Your task to perform on an android device: toggle pop-ups in chrome Image 0: 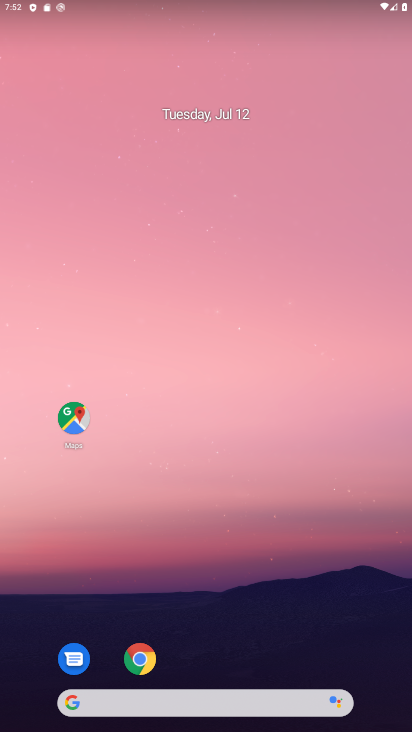
Step 0: drag from (342, 613) to (337, 74)
Your task to perform on an android device: toggle pop-ups in chrome Image 1: 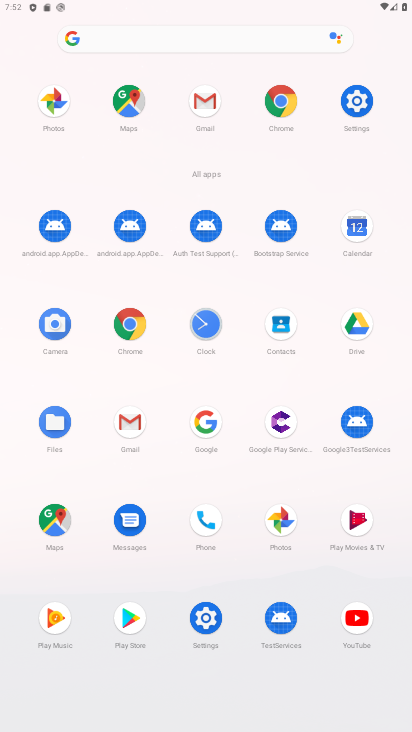
Step 1: click (133, 328)
Your task to perform on an android device: toggle pop-ups in chrome Image 2: 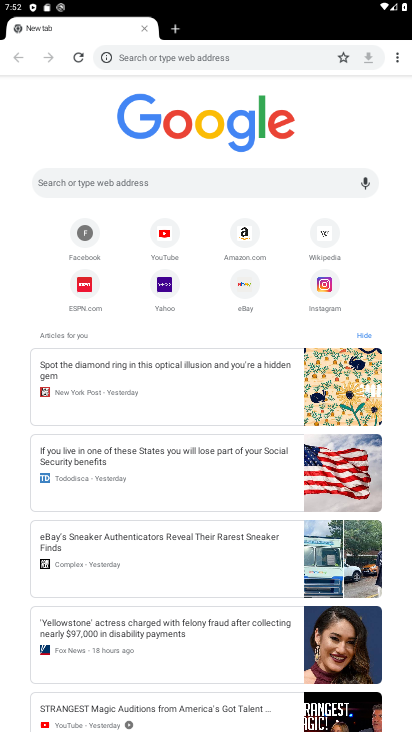
Step 2: click (394, 60)
Your task to perform on an android device: toggle pop-ups in chrome Image 3: 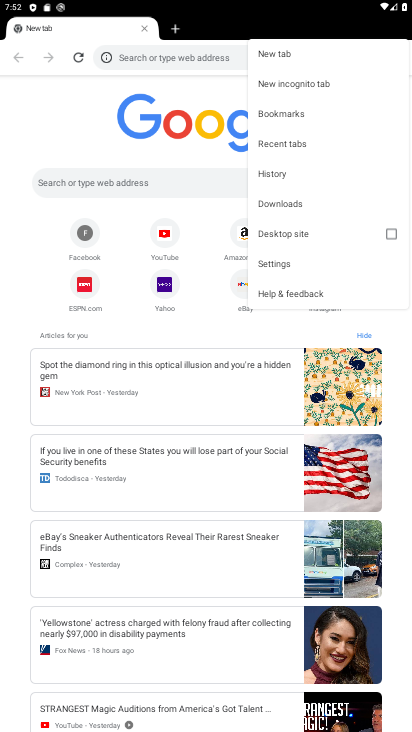
Step 3: click (292, 264)
Your task to perform on an android device: toggle pop-ups in chrome Image 4: 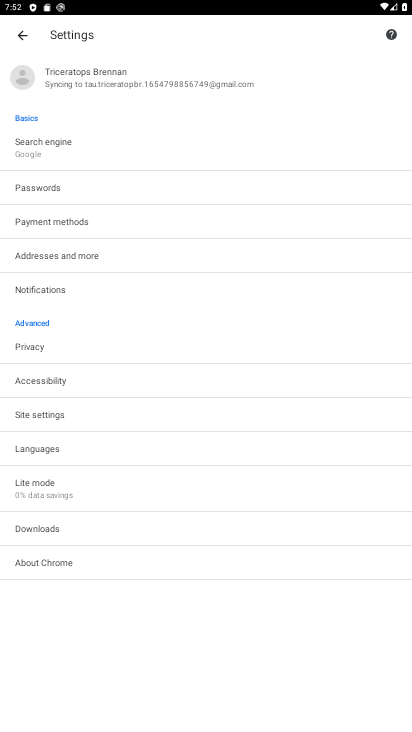
Step 4: click (138, 416)
Your task to perform on an android device: toggle pop-ups in chrome Image 5: 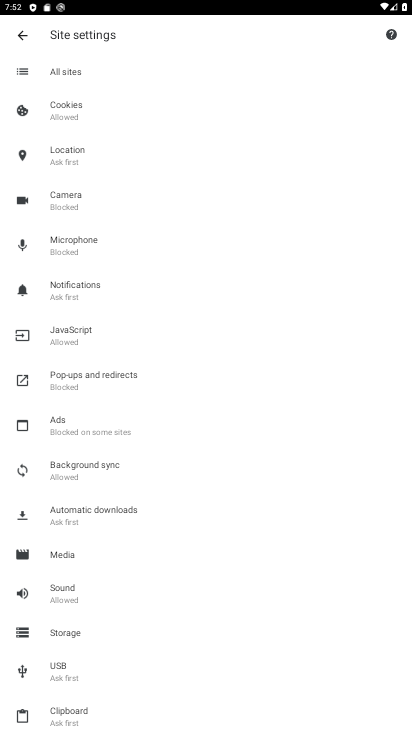
Step 5: drag from (226, 420) to (240, 310)
Your task to perform on an android device: toggle pop-ups in chrome Image 6: 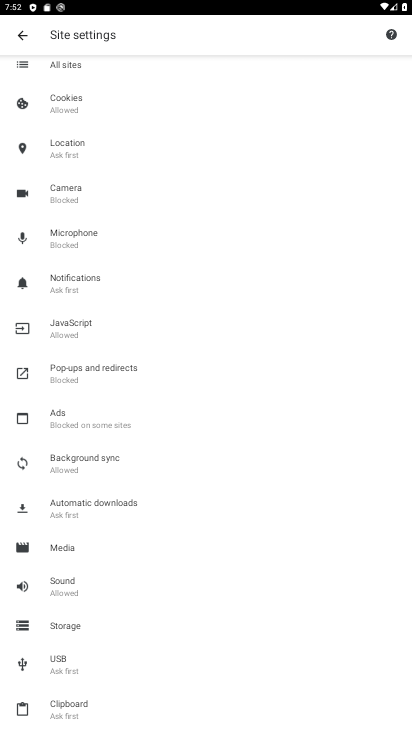
Step 6: drag from (257, 209) to (258, 290)
Your task to perform on an android device: toggle pop-ups in chrome Image 7: 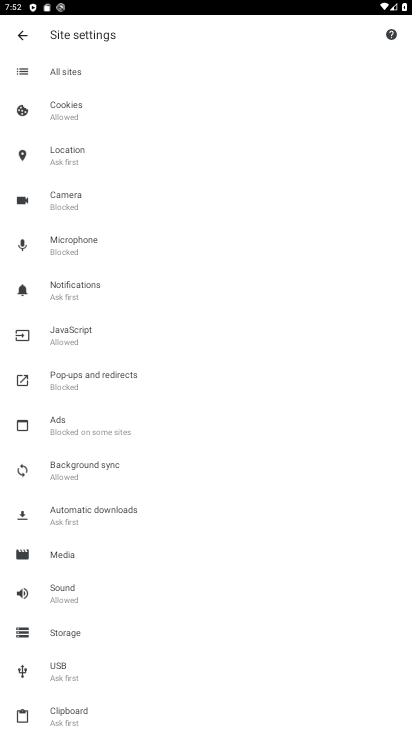
Step 7: drag from (259, 244) to (259, 363)
Your task to perform on an android device: toggle pop-ups in chrome Image 8: 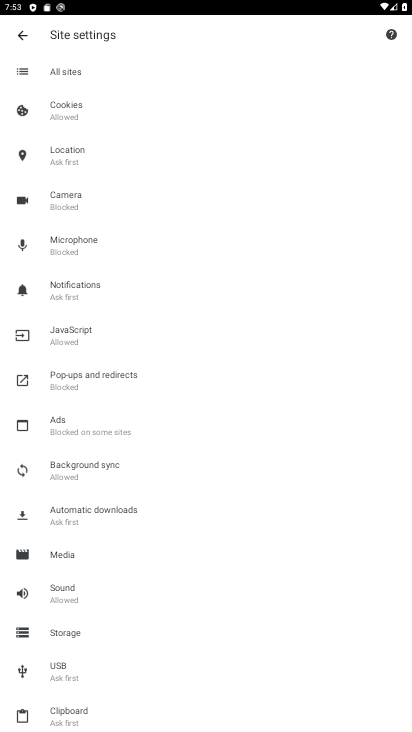
Step 8: click (101, 385)
Your task to perform on an android device: toggle pop-ups in chrome Image 9: 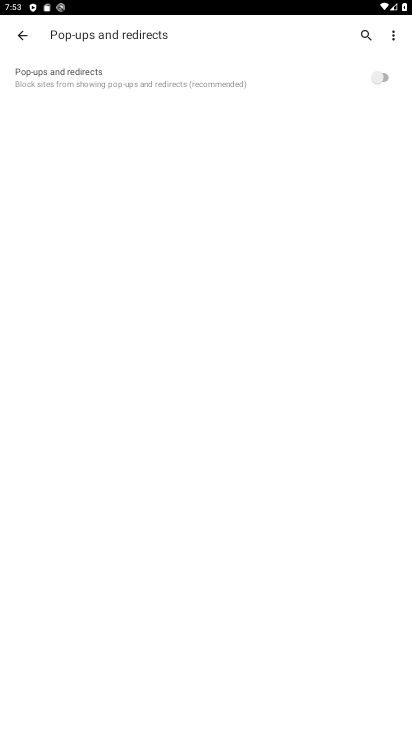
Step 9: click (374, 75)
Your task to perform on an android device: toggle pop-ups in chrome Image 10: 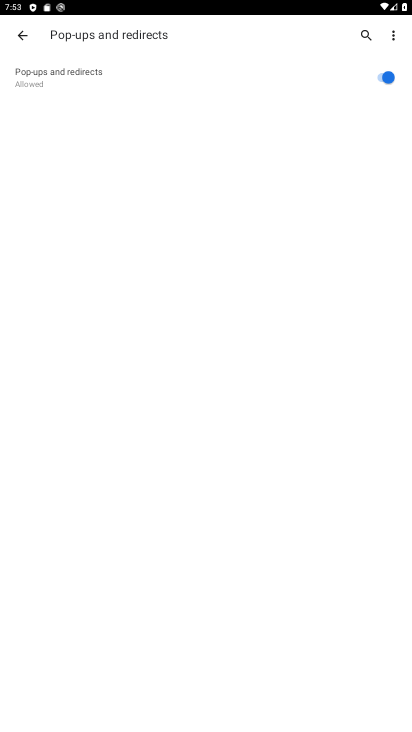
Step 10: task complete